Your task to perform on an android device: find snoozed emails in the gmail app Image 0: 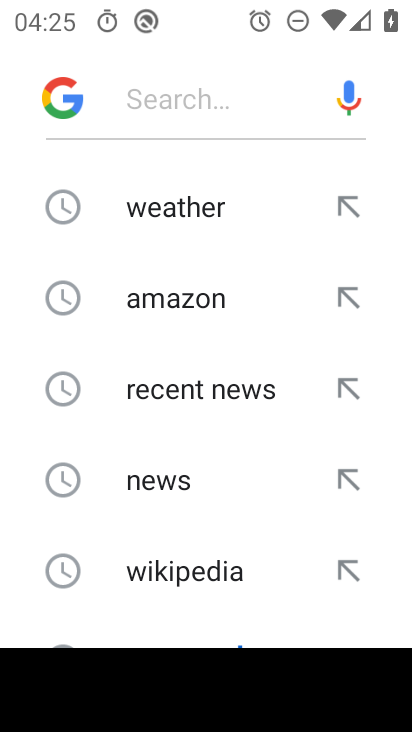
Step 0: drag from (265, 556) to (272, 206)
Your task to perform on an android device: find snoozed emails in the gmail app Image 1: 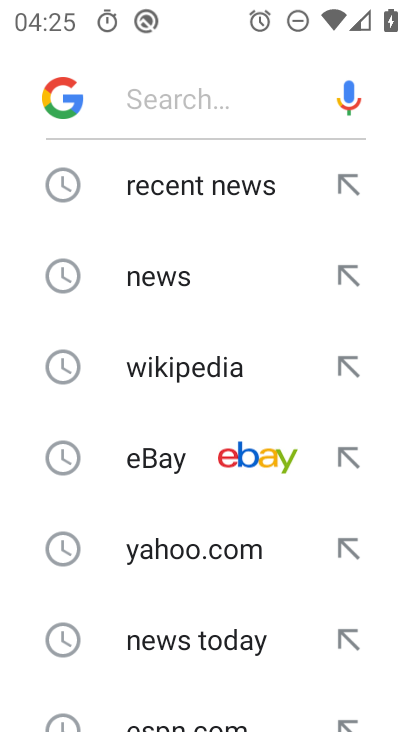
Step 1: press back button
Your task to perform on an android device: find snoozed emails in the gmail app Image 2: 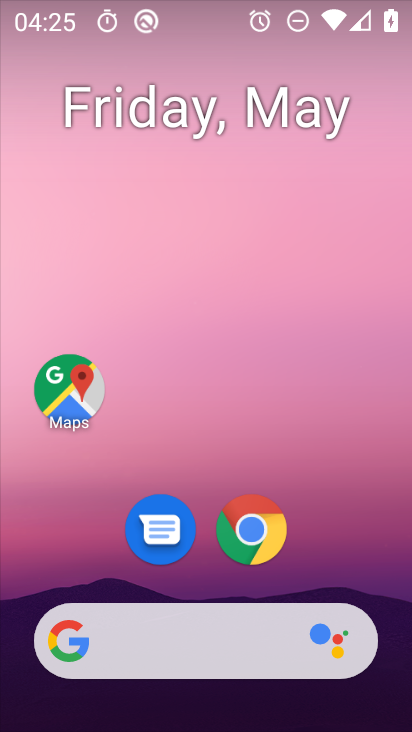
Step 2: drag from (386, 582) to (347, 241)
Your task to perform on an android device: find snoozed emails in the gmail app Image 3: 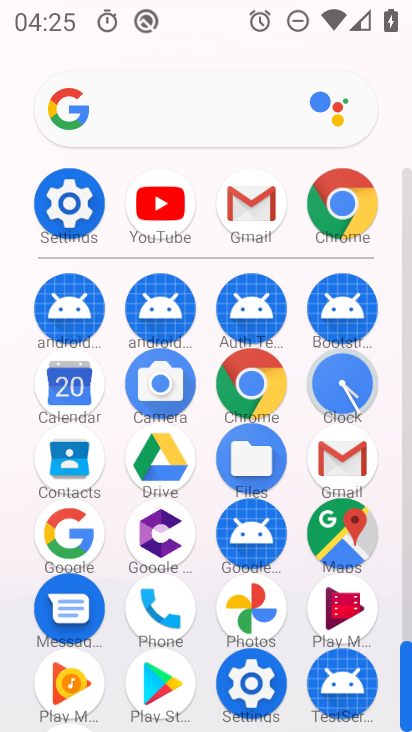
Step 3: click (356, 427)
Your task to perform on an android device: find snoozed emails in the gmail app Image 4: 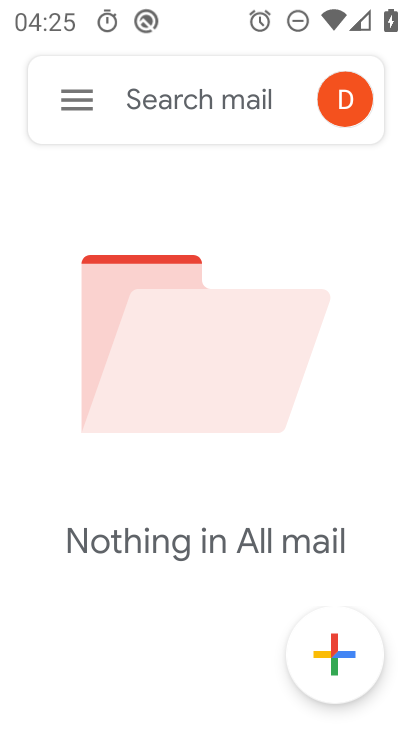
Step 4: click (85, 108)
Your task to perform on an android device: find snoozed emails in the gmail app Image 5: 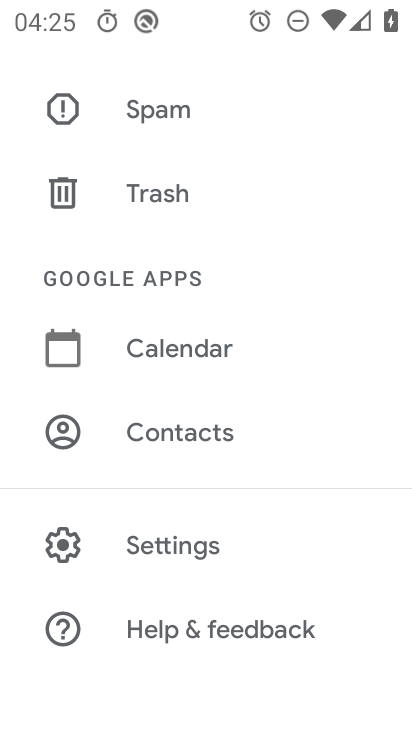
Step 5: drag from (315, 593) to (320, 329)
Your task to perform on an android device: find snoozed emails in the gmail app Image 6: 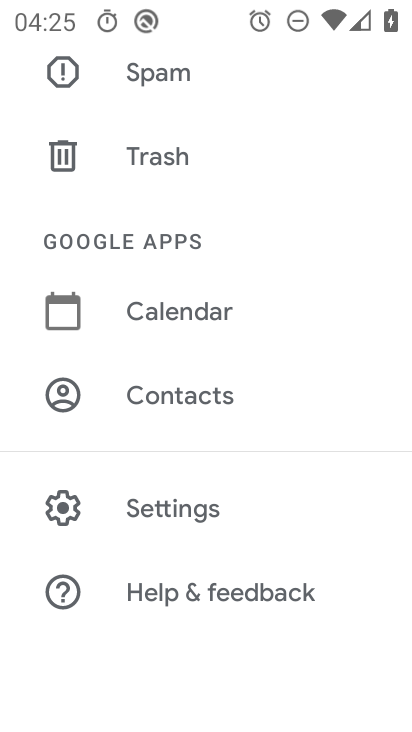
Step 6: click (164, 511)
Your task to perform on an android device: find snoozed emails in the gmail app Image 7: 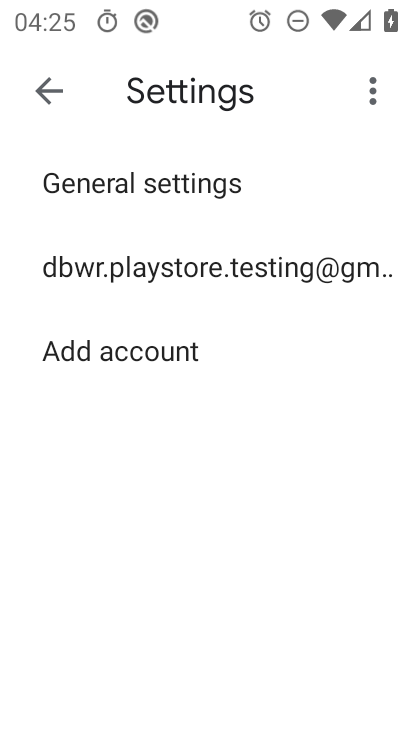
Step 7: press back button
Your task to perform on an android device: find snoozed emails in the gmail app Image 8: 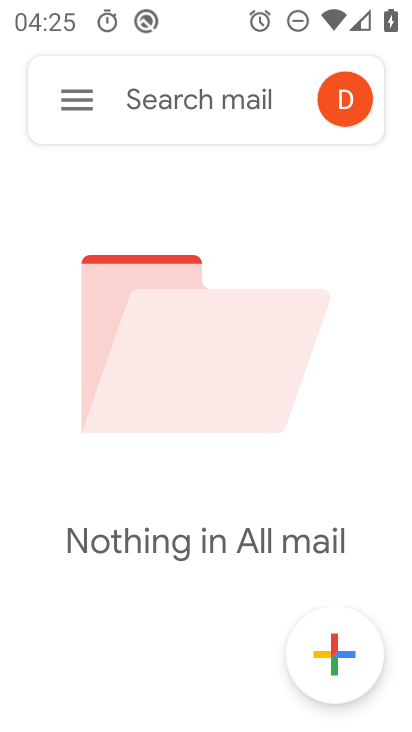
Step 8: click (67, 94)
Your task to perform on an android device: find snoozed emails in the gmail app Image 9: 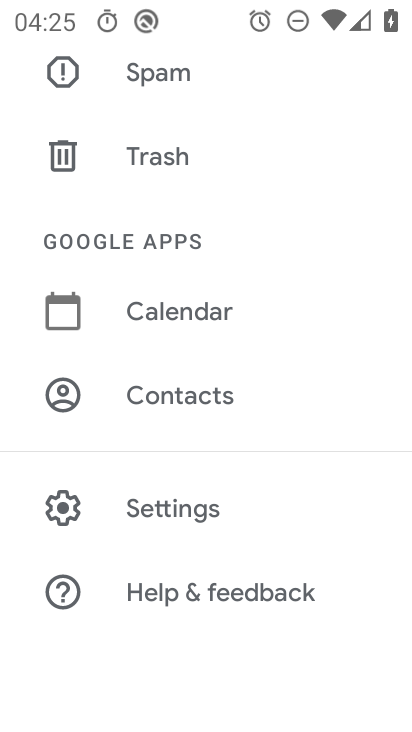
Step 9: drag from (311, 156) to (330, 636)
Your task to perform on an android device: find snoozed emails in the gmail app Image 10: 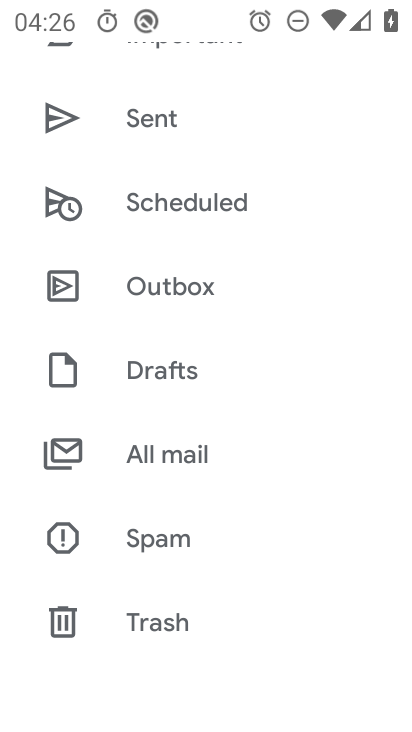
Step 10: drag from (308, 146) to (281, 594)
Your task to perform on an android device: find snoozed emails in the gmail app Image 11: 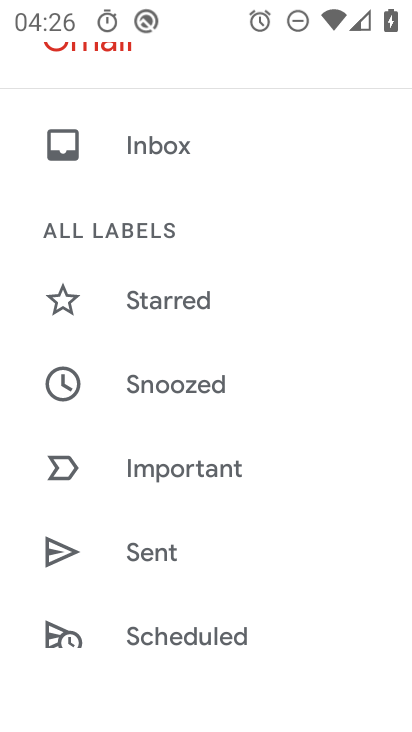
Step 11: click (189, 302)
Your task to perform on an android device: find snoozed emails in the gmail app Image 12: 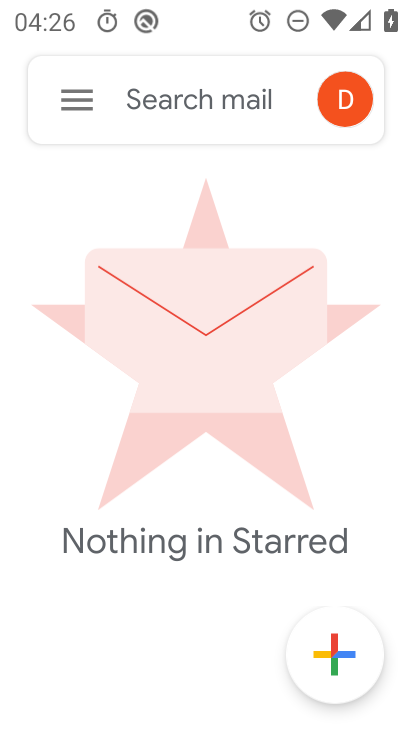
Step 12: task complete